Your task to perform on an android device: allow cookies in the chrome app Image 0: 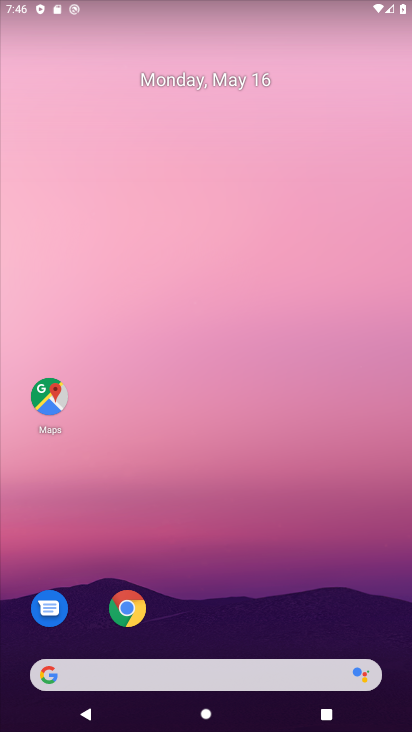
Step 0: click (123, 608)
Your task to perform on an android device: allow cookies in the chrome app Image 1: 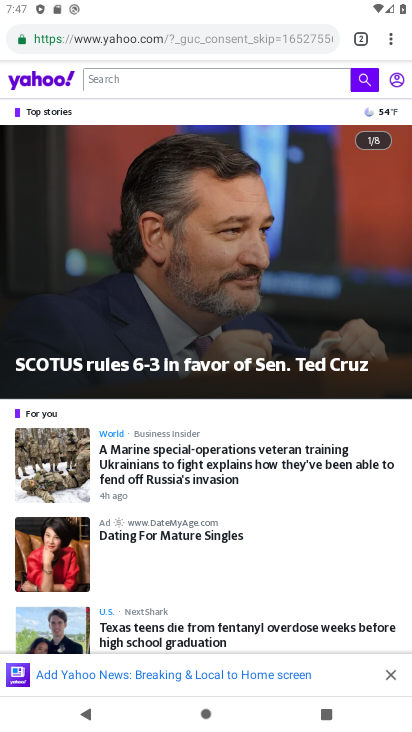
Step 1: click (393, 35)
Your task to perform on an android device: allow cookies in the chrome app Image 2: 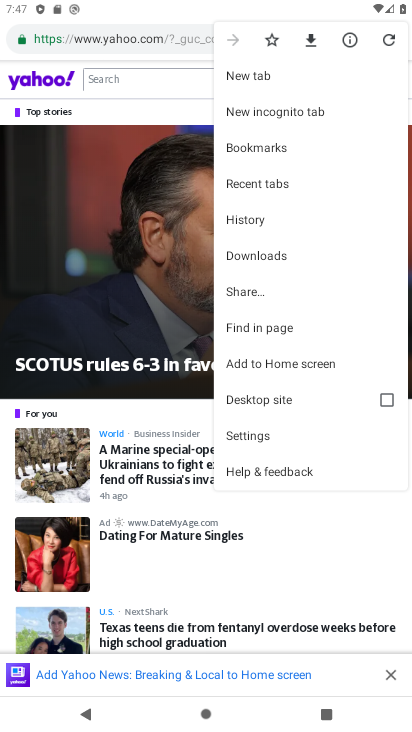
Step 2: click (262, 437)
Your task to perform on an android device: allow cookies in the chrome app Image 3: 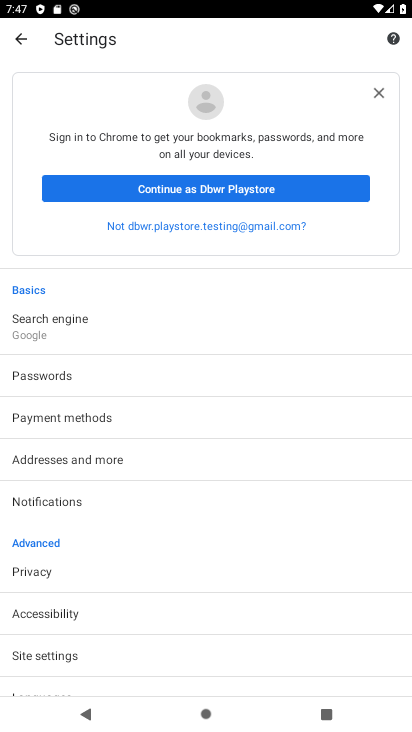
Step 3: drag from (86, 601) to (224, 222)
Your task to perform on an android device: allow cookies in the chrome app Image 4: 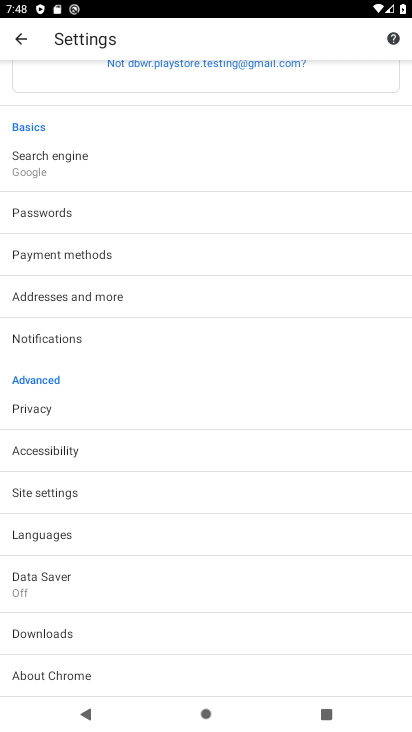
Step 4: click (75, 486)
Your task to perform on an android device: allow cookies in the chrome app Image 5: 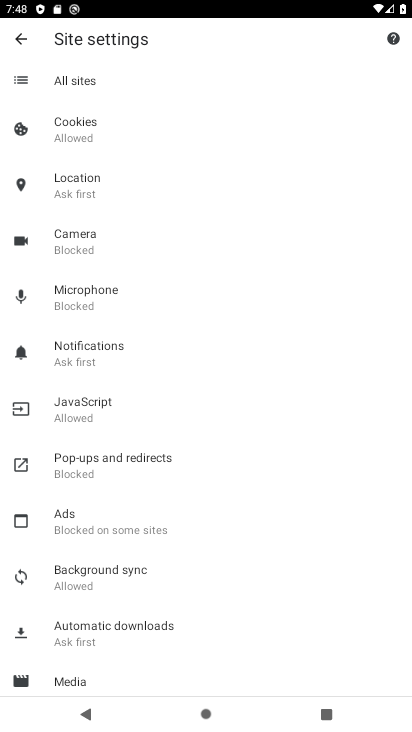
Step 5: drag from (96, 624) to (128, 640)
Your task to perform on an android device: allow cookies in the chrome app Image 6: 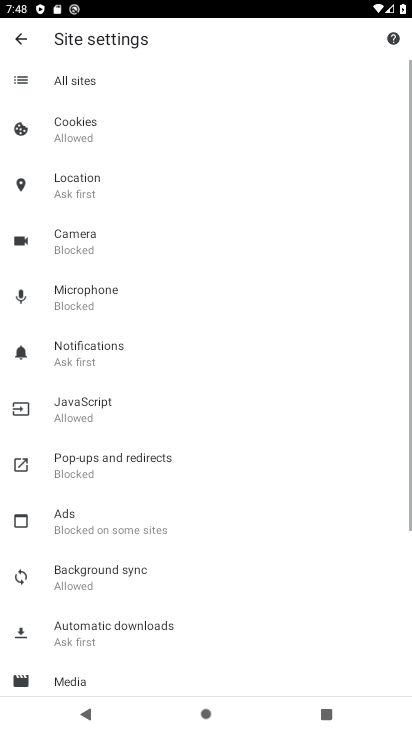
Step 6: click (101, 133)
Your task to perform on an android device: allow cookies in the chrome app Image 7: 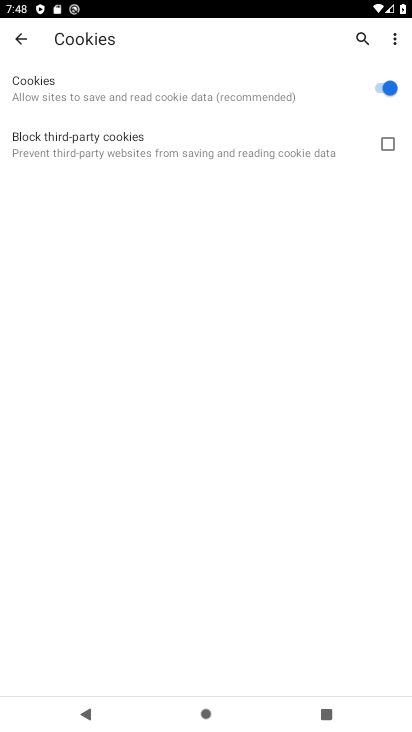
Step 7: task complete